Your task to perform on an android device: change your default location settings in chrome Image 0: 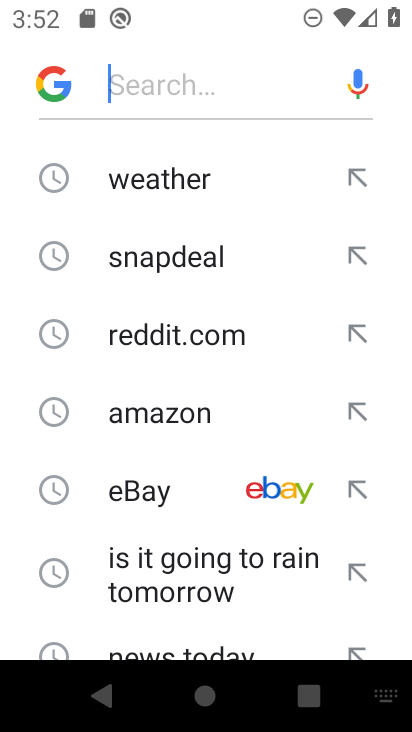
Step 0: press home button
Your task to perform on an android device: change your default location settings in chrome Image 1: 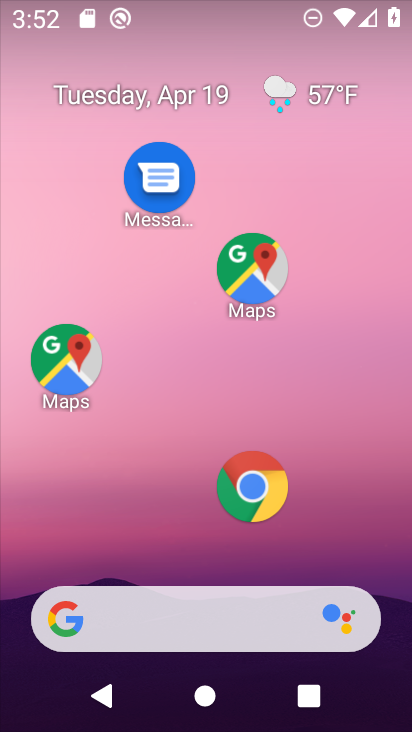
Step 1: click (277, 503)
Your task to perform on an android device: change your default location settings in chrome Image 2: 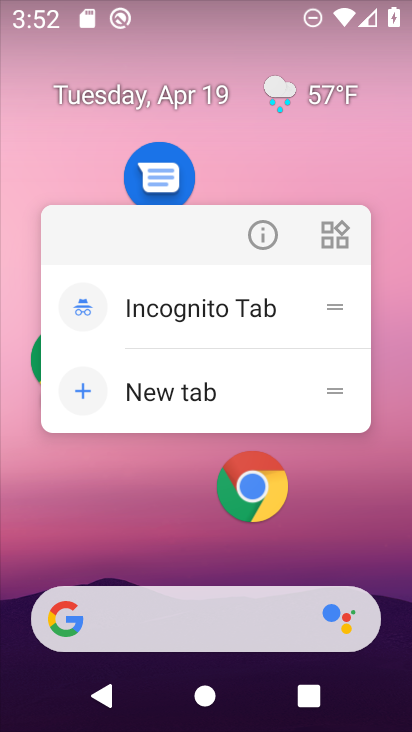
Step 2: click (261, 227)
Your task to perform on an android device: change your default location settings in chrome Image 3: 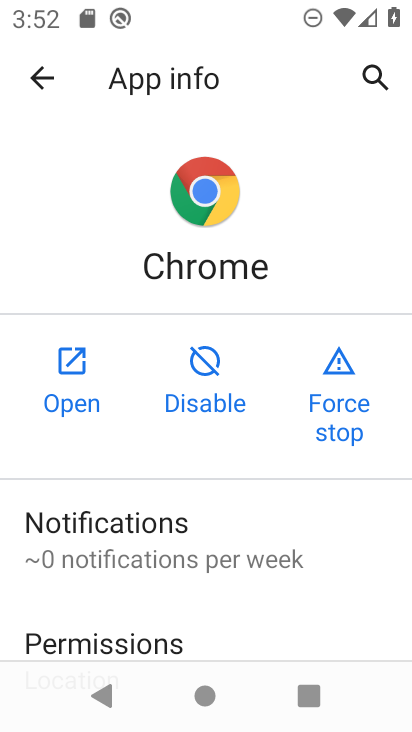
Step 3: click (89, 384)
Your task to perform on an android device: change your default location settings in chrome Image 4: 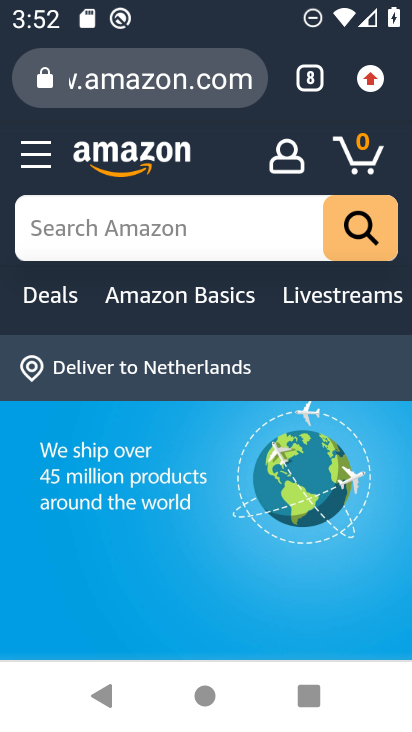
Step 4: click (380, 92)
Your task to perform on an android device: change your default location settings in chrome Image 5: 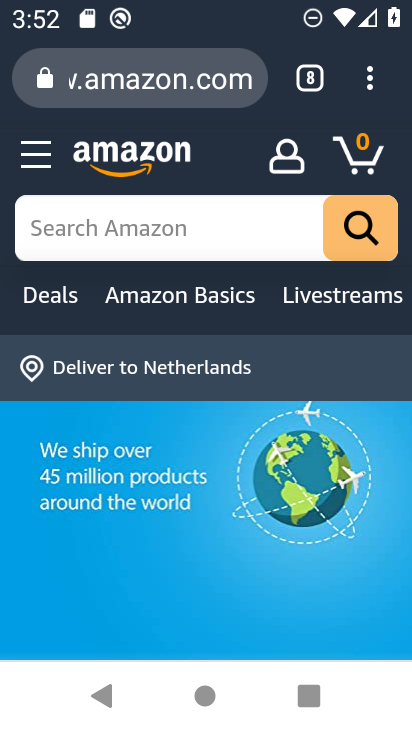
Step 5: click (367, 80)
Your task to perform on an android device: change your default location settings in chrome Image 6: 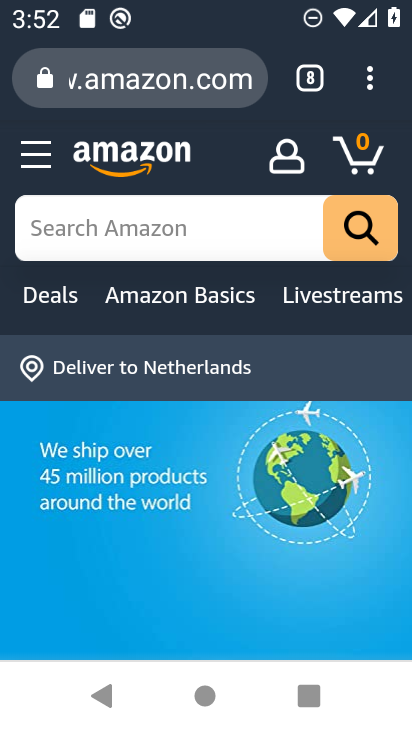
Step 6: click (375, 82)
Your task to perform on an android device: change your default location settings in chrome Image 7: 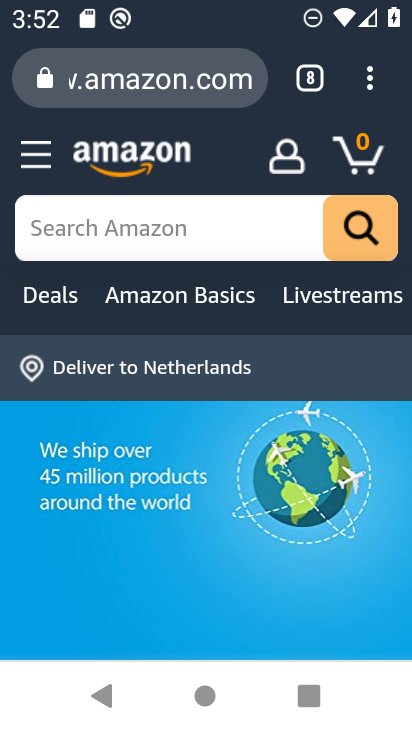
Step 7: click (378, 80)
Your task to perform on an android device: change your default location settings in chrome Image 8: 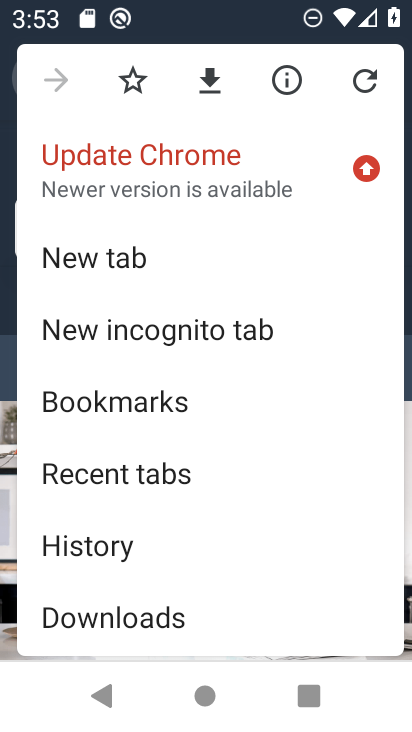
Step 8: drag from (239, 532) to (287, 183)
Your task to perform on an android device: change your default location settings in chrome Image 9: 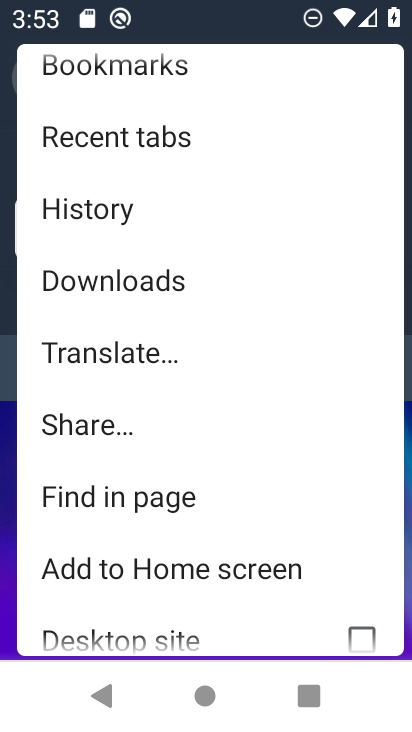
Step 9: drag from (204, 502) to (292, 180)
Your task to perform on an android device: change your default location settings in chrome Image 10: 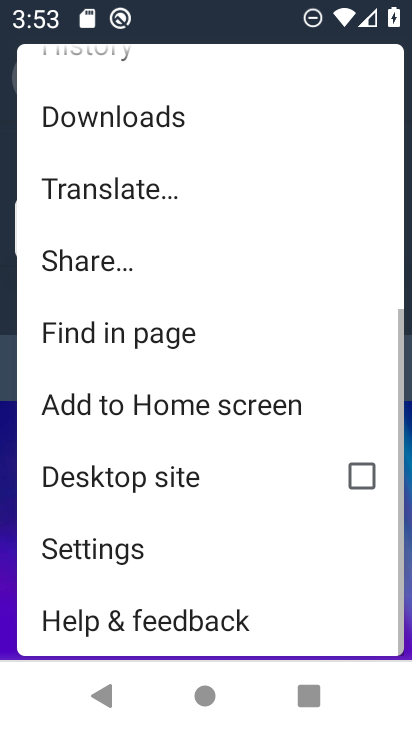
Step 10: click (177, 543)
Your task to perform on an android device: change your default location settings in chrome Image 11: 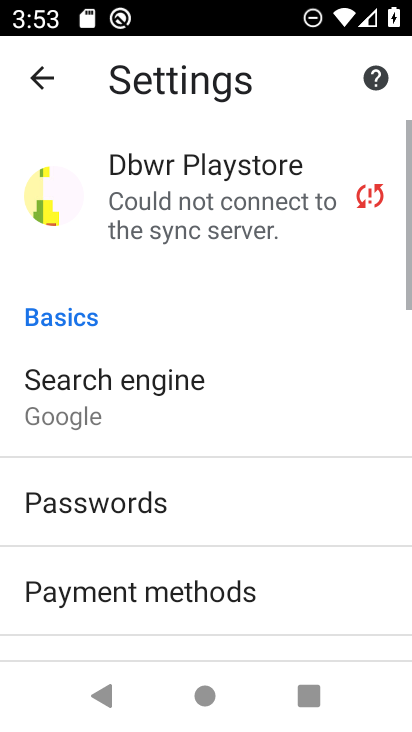
Step 11: drag from (256, 527) to (307, 190)
Your task to perform on an android device: change your default location settings in chrome Image 12: 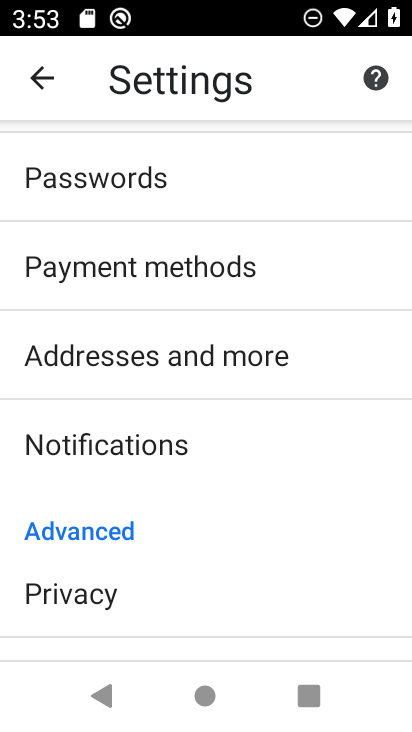
Step 12: drag from (179, 504) to (223, 398)
Your task to perform on an android device: change your default location settings in chrome Image 13: 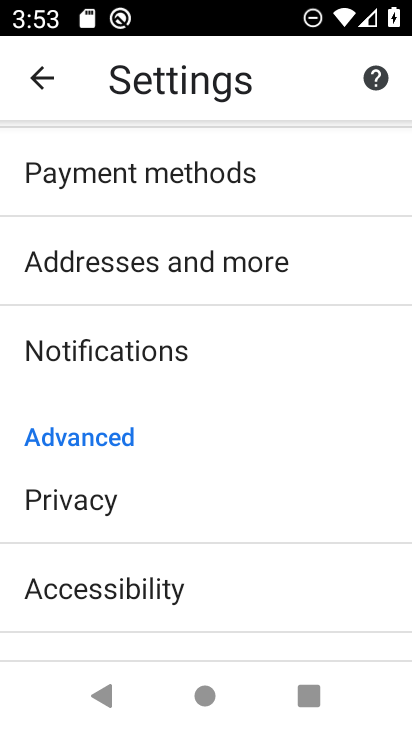
Step 13: drag from (188, 512) to (260, 301)
Your task to perform on an android device: change your default location settings in chrome Image 14: 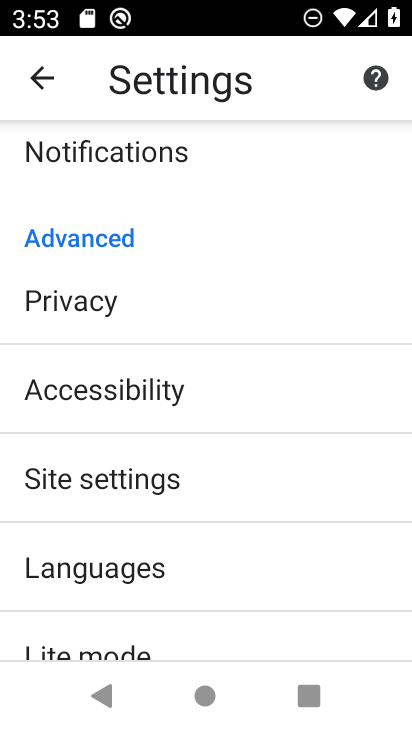
Step 14: click (178, 483)
Your task to perform on an android device: change your default location settings in chrome Image 15: 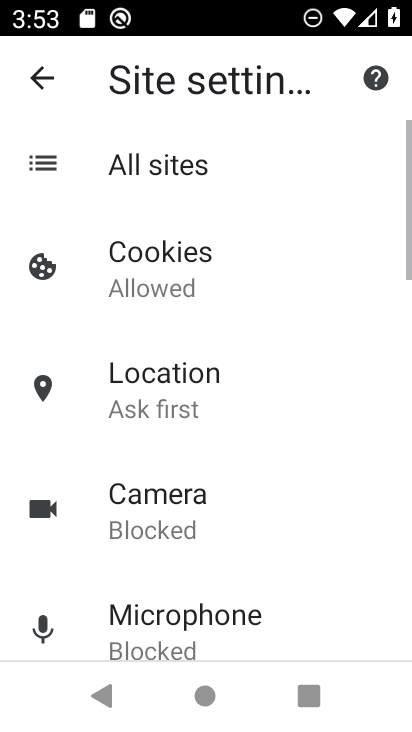
Step 15: click (180, 405)
Your task to perform on an android device: change your default location settings in chrome Image 16: 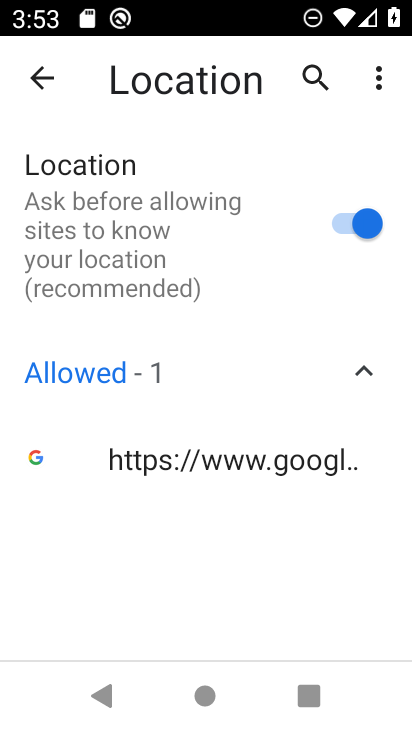
Step 16: click (378, 222)
Your task to perform on an android device: change your default location settings in chrome Image 17: 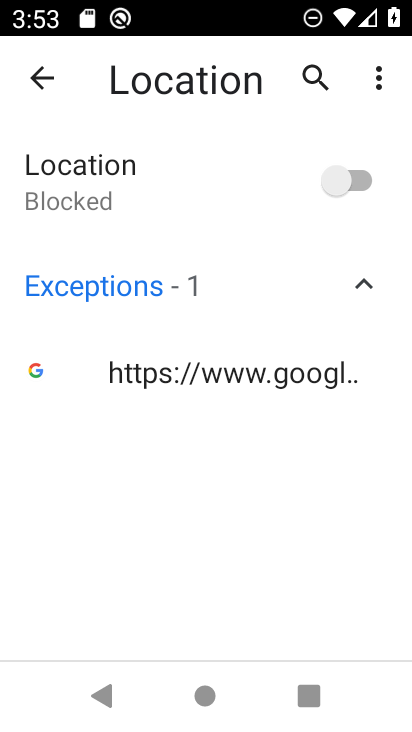
Step 17: task complete